Your task to perform on an android device: set the stopwatch Image 0: 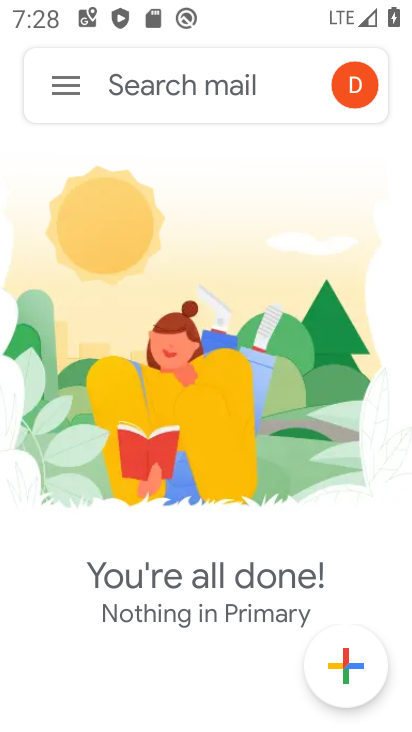
Step 0: press home button
Your task to perform on an android device: set the stopwatch Image 1: 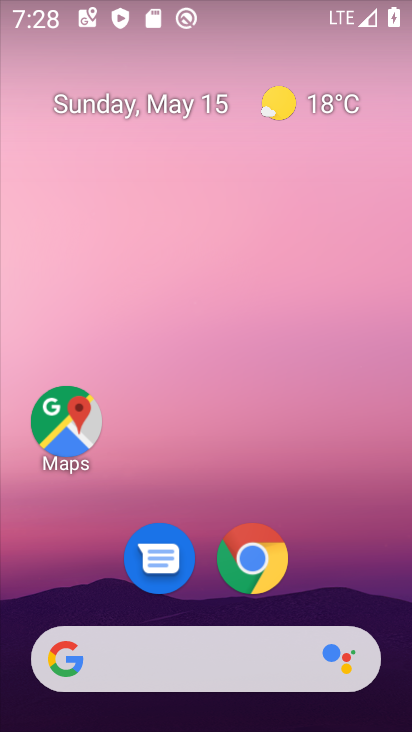
Step 1: drag from (178, 47) to (197, 12)
Your task to perform on an android device: set the stopwatch Image 2: 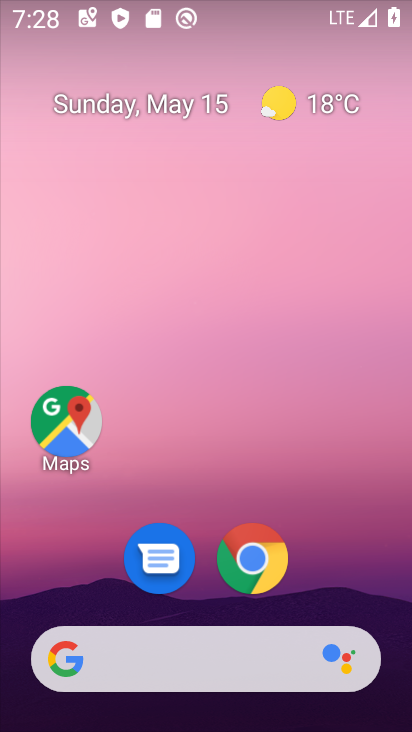
Step 2: drag from (324, 558) to (210, 48)
Your task to perform on an android device: set the stopwatch Image 3: 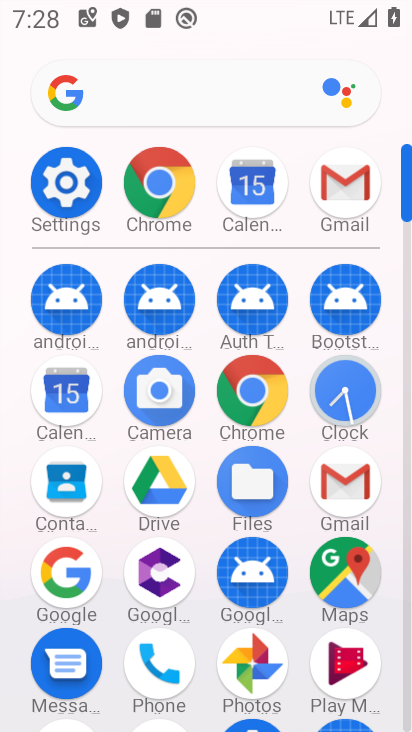
Step 3: click (347, 380)
Your task to perform on an android device: set the stopwatch Image 4: 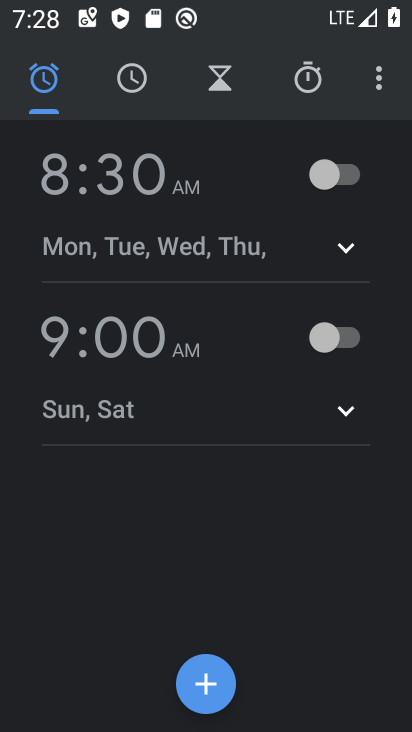
Step 4: click (311, 90)
Your task to perform on an android device: set the stopwatch Image 5: 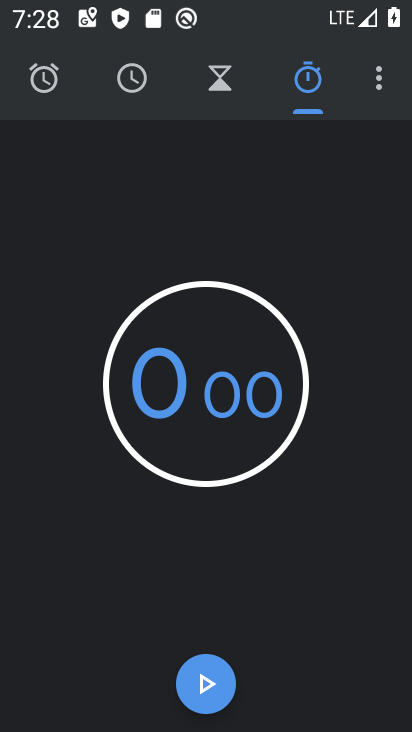
Step 5: task complete